Your task to perform on an android device: turn off javascript in the chrome app Image 0: 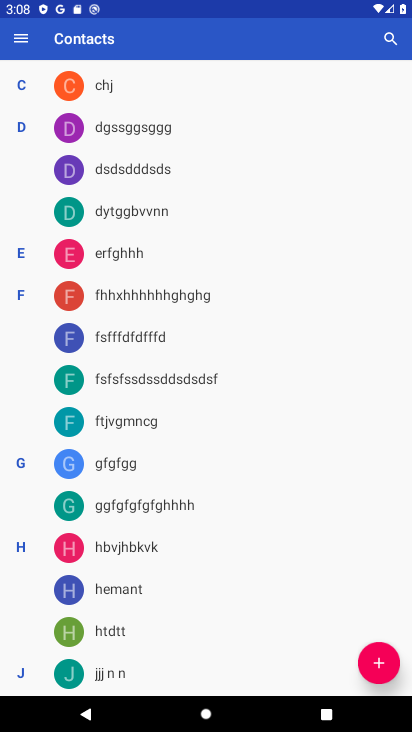
Step 0: task complete